Your task to perform on an android device: change alarm snooze length Image 0: 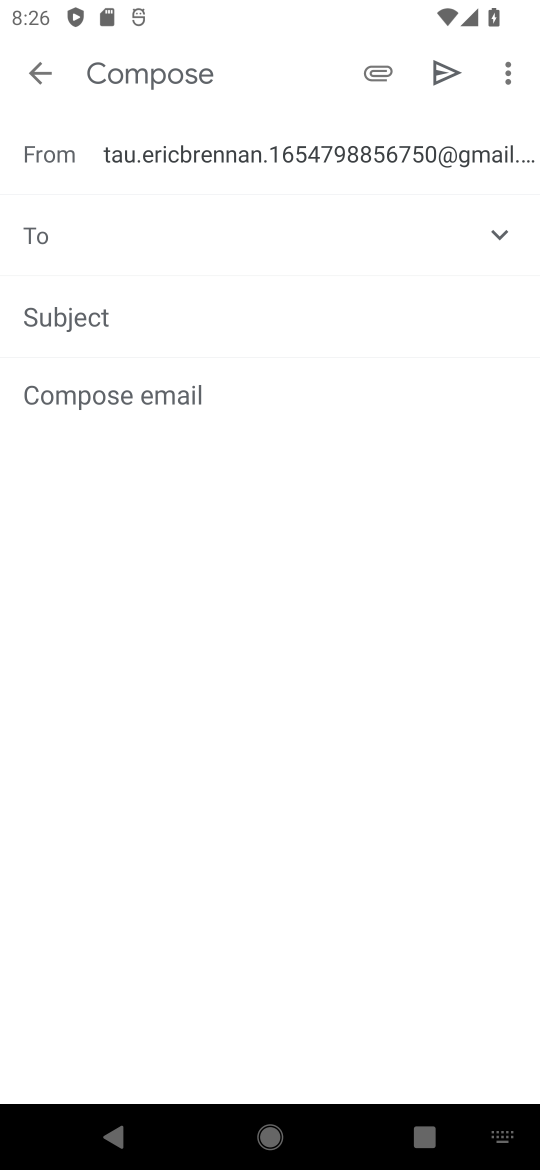
Step 0: press home button
Your task to perform on an android device: change alarm snooze length Image 1: 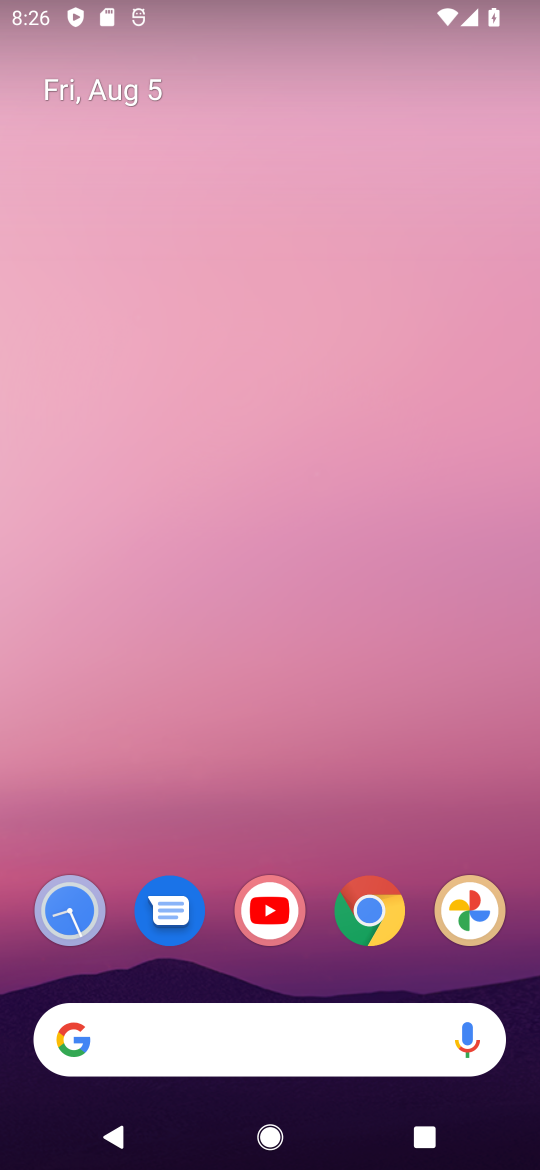
Step 1: click (61, 910)
Your task to perform on an android device: change alarm snooze length Image 2: 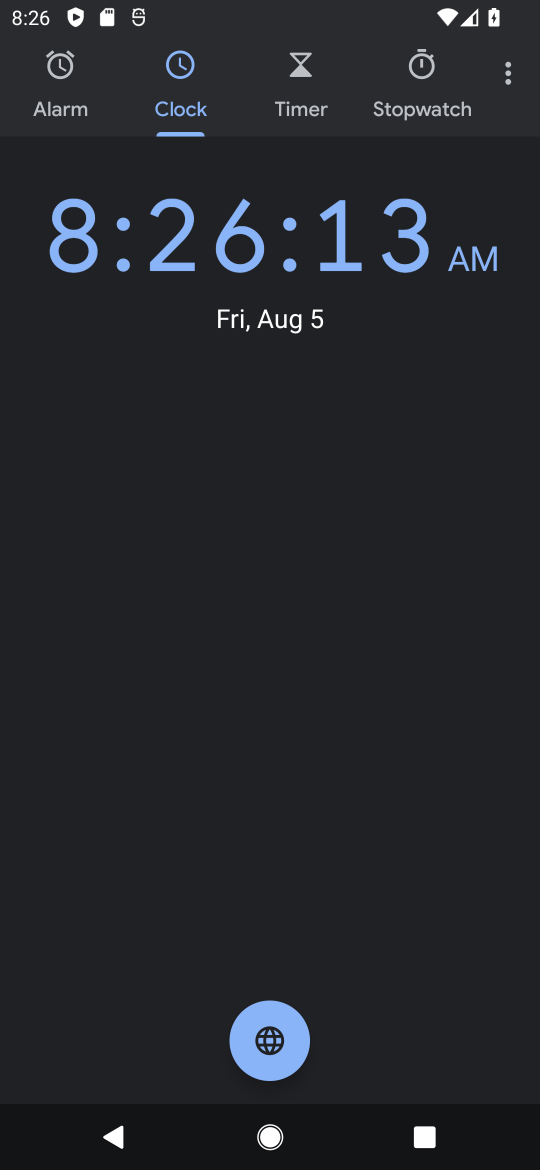
Step 2: click (510, 79)
Your task to perform on an android device: change alarm snooze length Image 3: 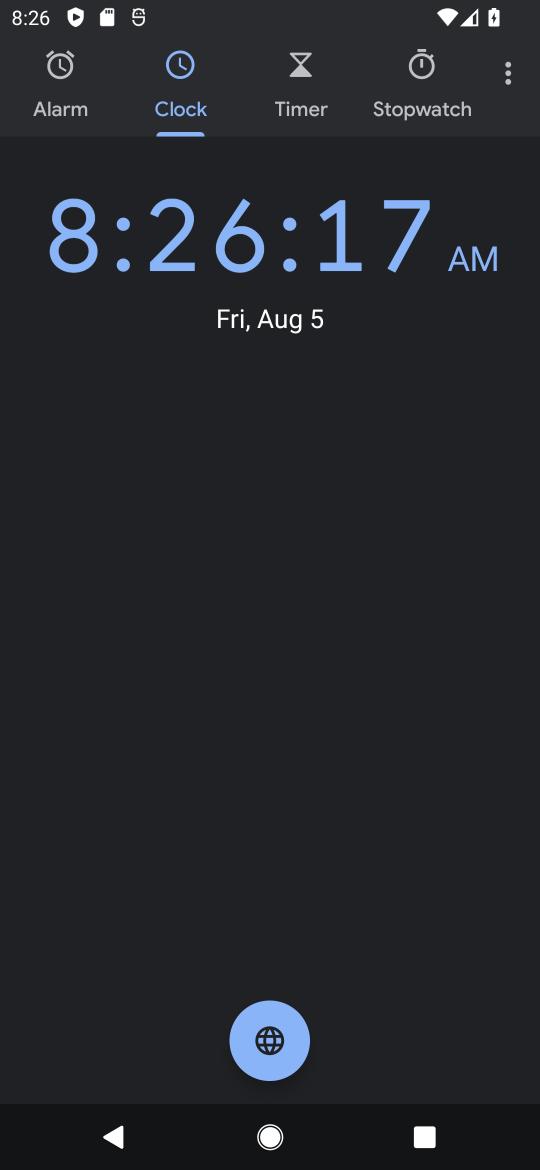
Step 3: click (505, 77)
Your task to perform on an android device: change alarm snooze length Image 4: 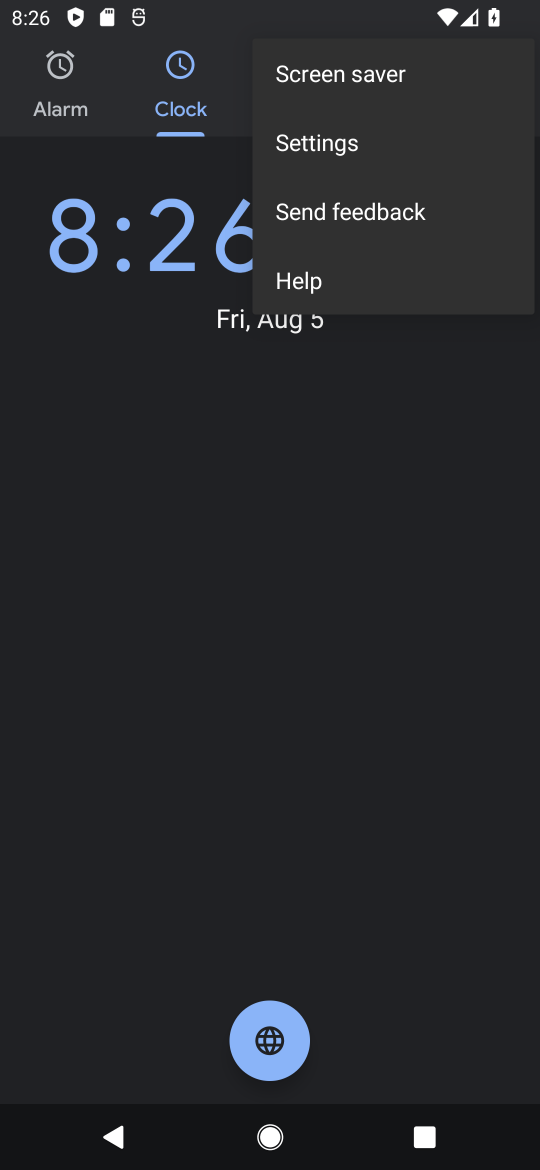
Step 4: click (360, 148)
Your task to perform on an android device: change alarm snooze length Image 5: 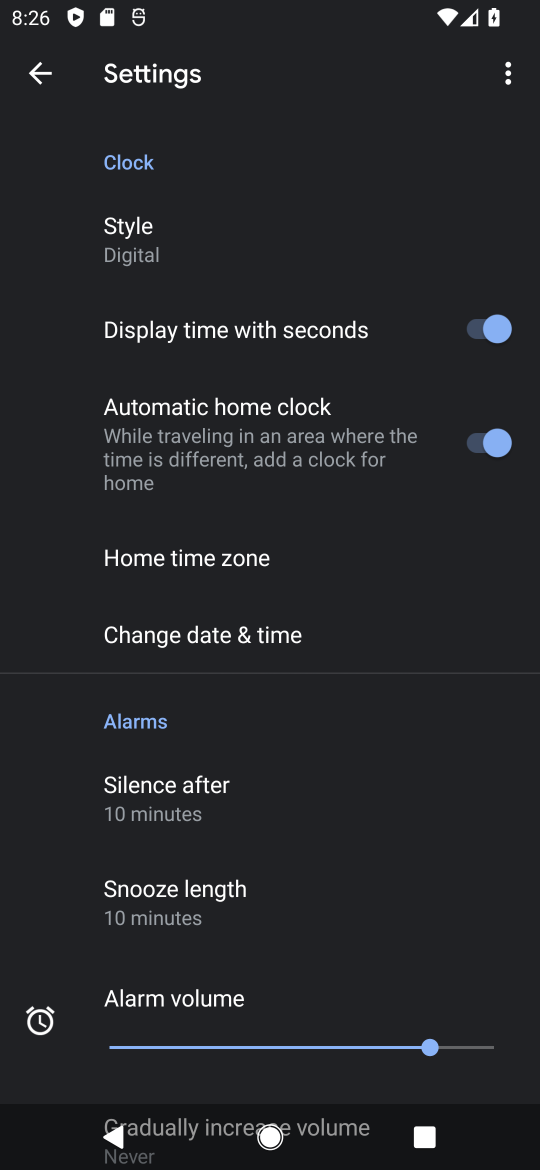
Step 5: click (209, 910)
Your task to perform on an android device: change alarm snooze length Image 6: 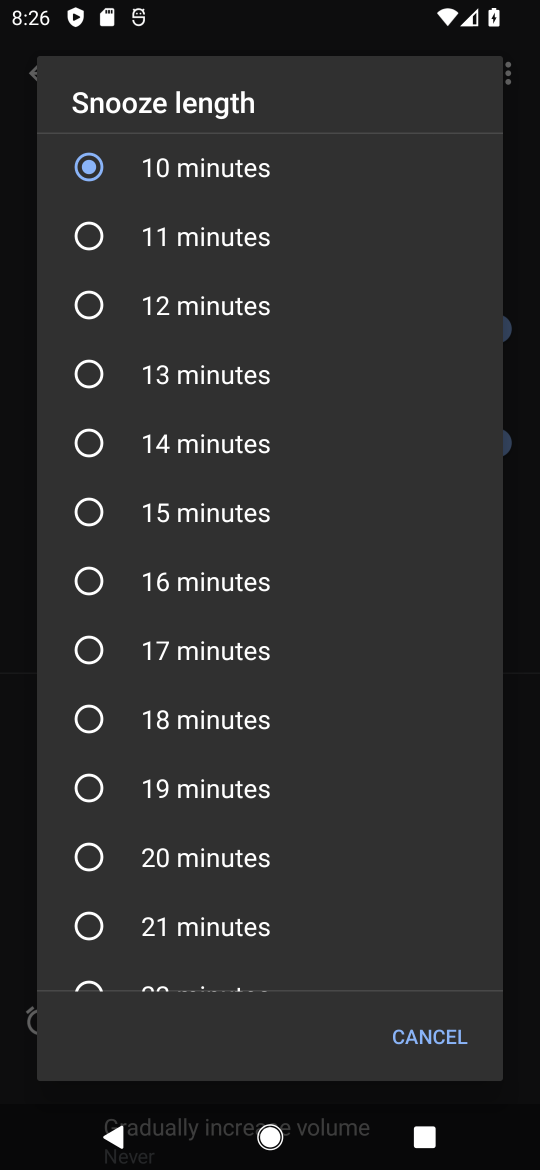
Step 6: click (90, 518)
Your task to perform on an android device: change alarm snooze length Image 7: 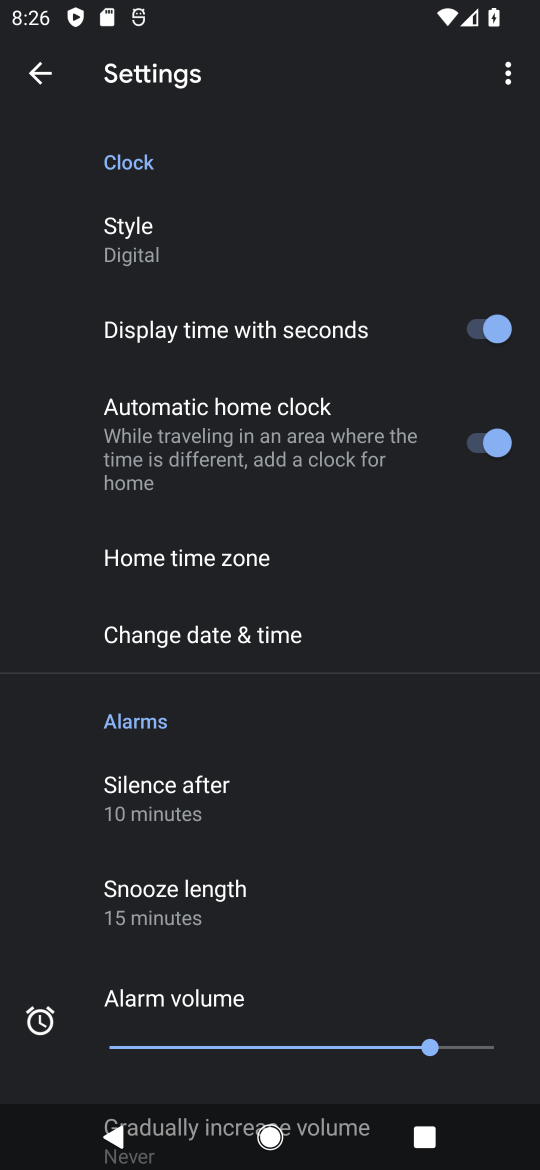
Step 7: task complete